Your task to perform on an android device: turn off notifications settings in the gmail app Image 0: 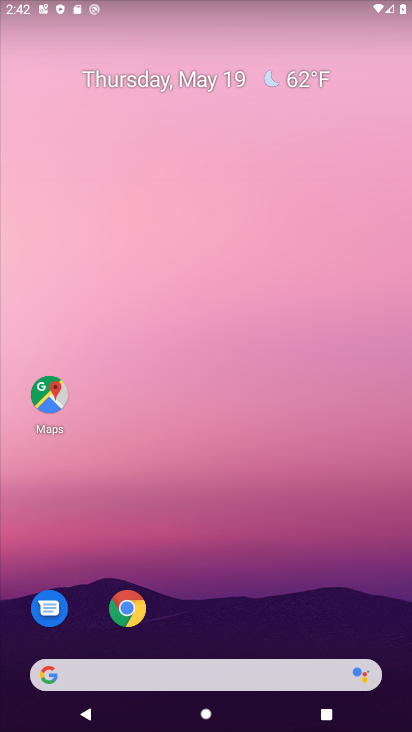
Step 0: drag from (311, 582) to (294, 298)
Your task to perform on an android device: turn off notifications settings in the gmail app Image 1: 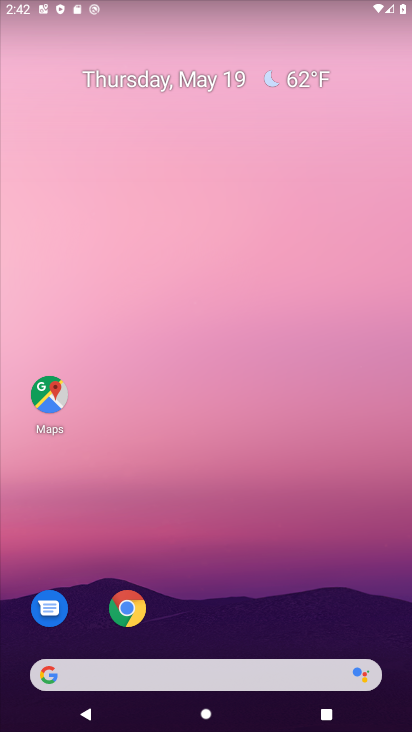
Step 1: drag from (296, 604) to (156, 71)
Your task to perform on an android device: turn off notifications settings in the gmail app Image 2: 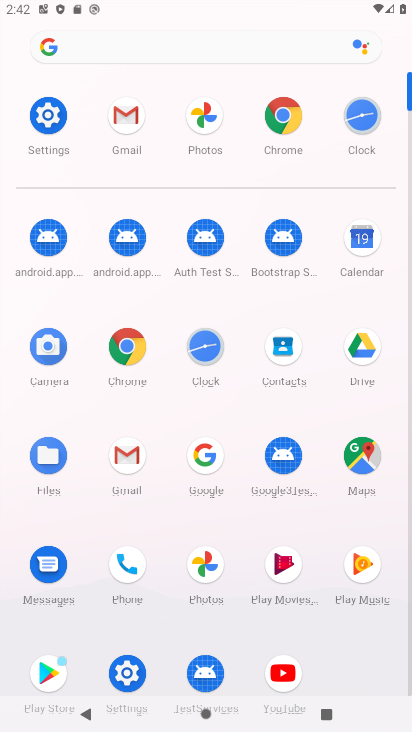
Step 2: click (118, 142)
Your task to perform on an android device: turn off notifications settings in the gmail app Image 3: 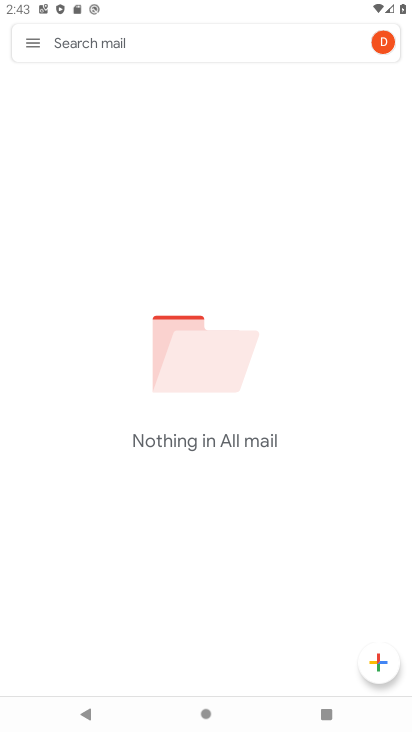
Step 3: click (40, 41)
Your task to perform on an android device: turn off notifications settings in the gmail app Image 4: 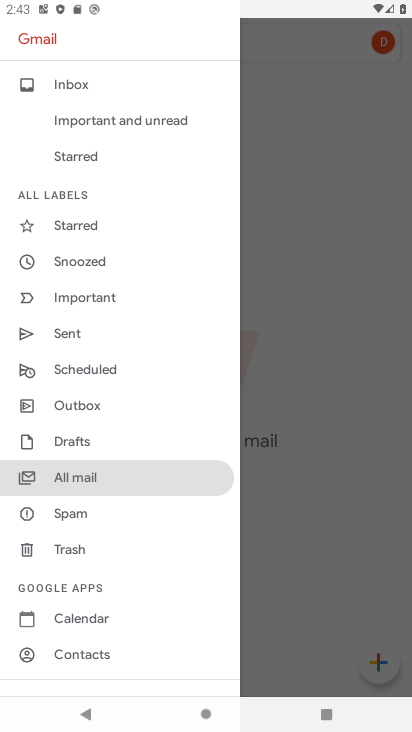
Step 4: task complete